Your task to perform on an android device: Open privacy settings Image 0: 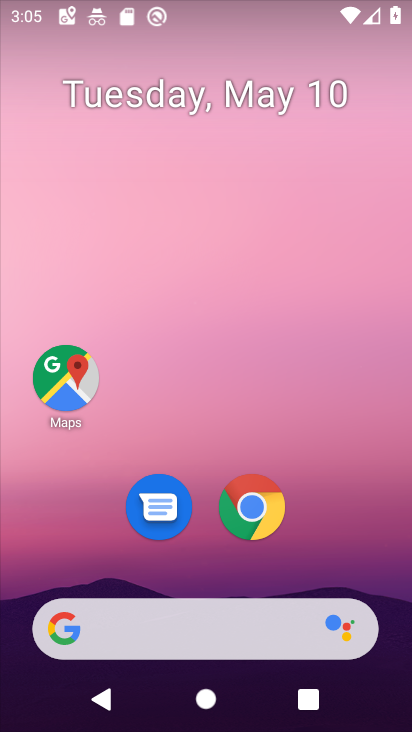
Step 0: drag from (190, 574) to (270, 238)
Your task to perform on an android device: Open privacy settings Image 1: 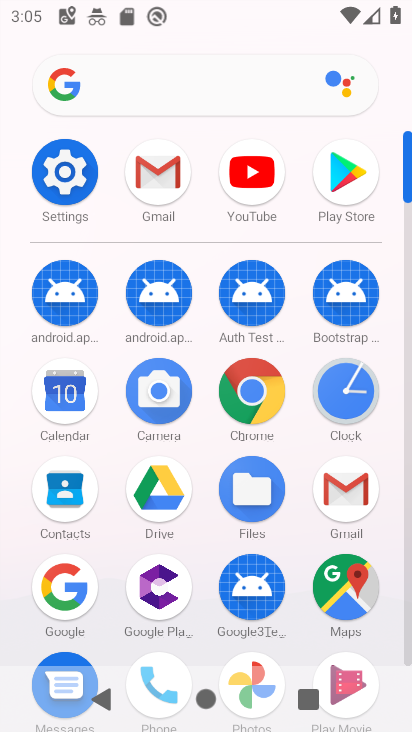
Step 1: click (65, 168)
Your task to perform on an android device: Open privacy settings Image 2: 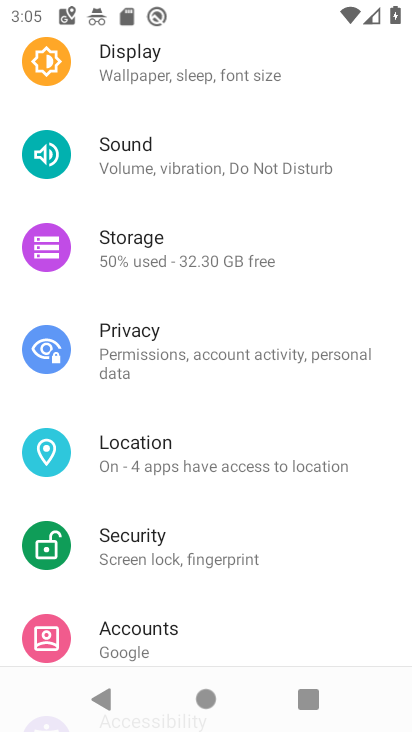
Step 2: click (154, 356)
Your task to perform on an android device: Open privacy settings Image 3: 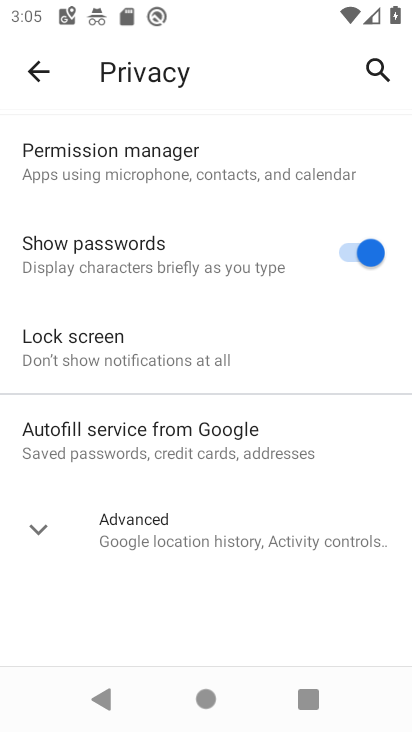
Step 3: task complete